Your task to perform on an android device: Open Yahoo.com Image 0: 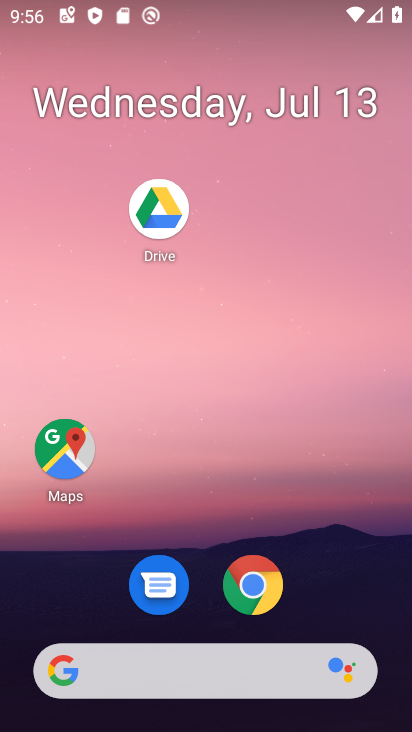
Step 0: press home button
Your task to perform on an android device: Open Yahoo.com Image 1: 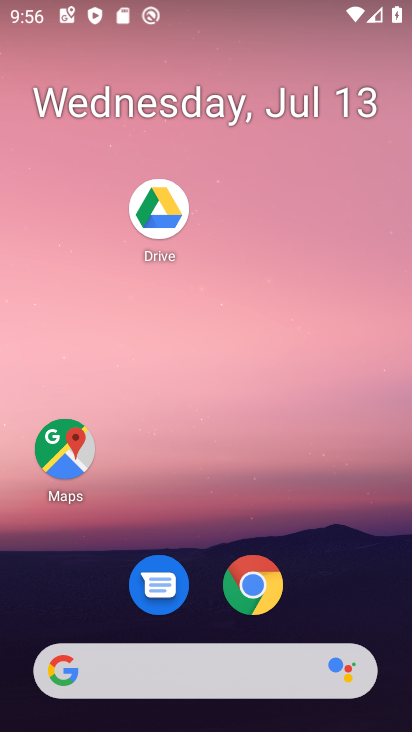
Step 1: click (254, 575)
Your task to perform on an android device: Open Yahoo.com Image 2: 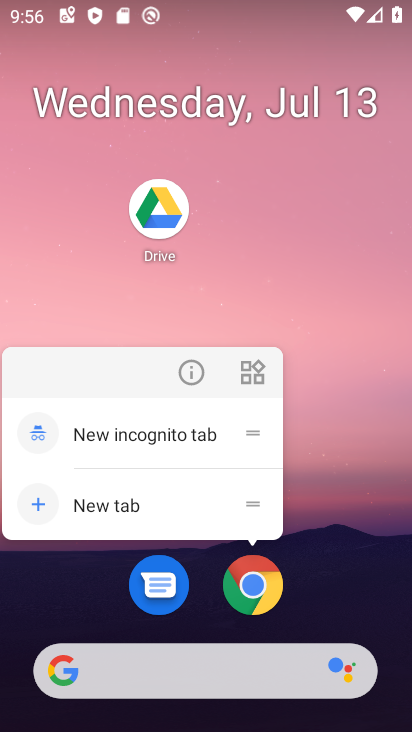
Step 2: click (259, 577)
Your task to perform on an android device: Open Yahoo.com Image 3: 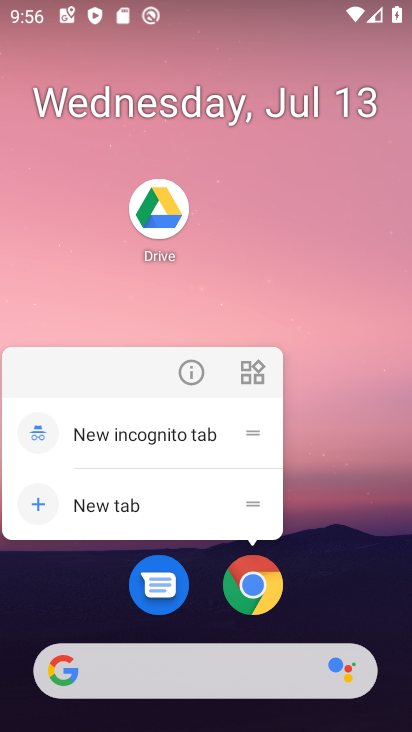
Step 3: click (255, 584)
Your task to perform on an android device: Open Yahoo.com Image 4: 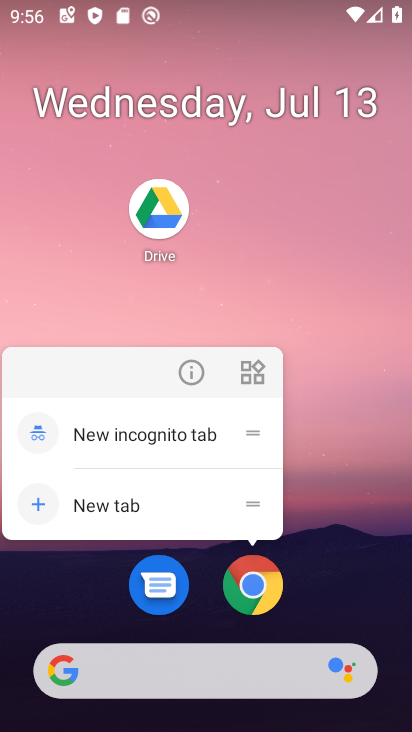
Step 4: click (255, 584)
Your task to perform on an android device: Open Yahoo.com Image 5: 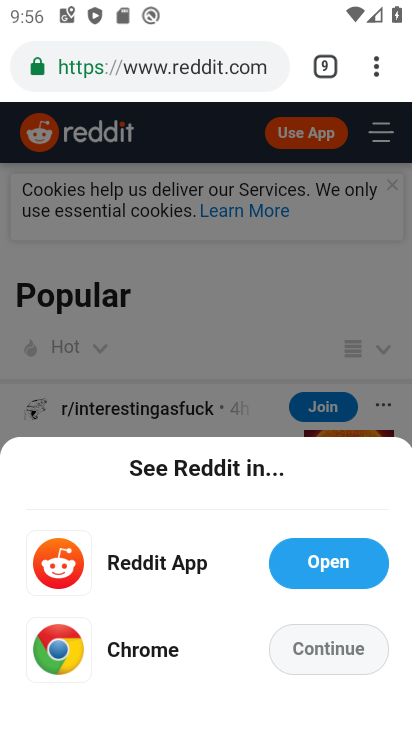
Step 5: drag from (369, 64) to (227, 132)
Your task to perform on an android device: Open Yahoo.com Image 6: 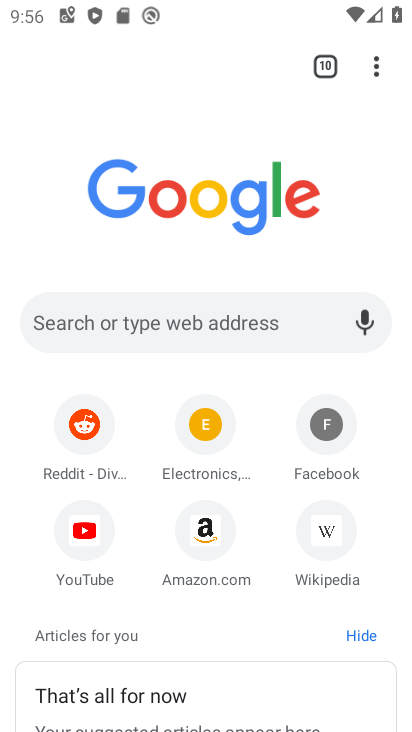
Step 6: click (111, 331)
Your task to perform on an android device: Open Yahoo.com Image 7: 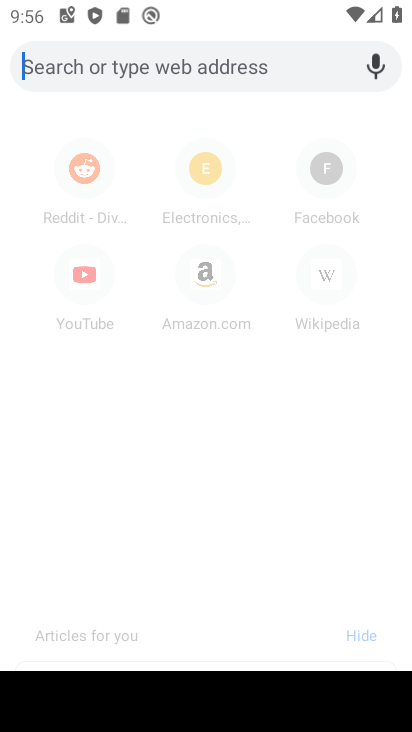
Step 7: type "yahoo.com"
Your task to perform on an android device: Open Yahoo.com Image 8: 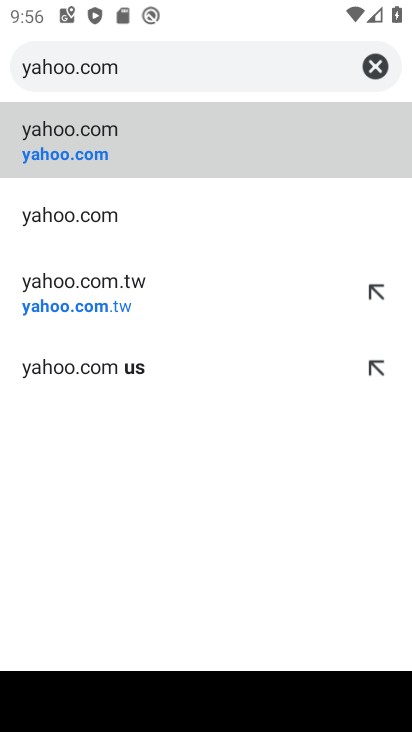
Step 8: click (70, 135)
Your task to perform on an android device: Open Yahoo.com Image 9: 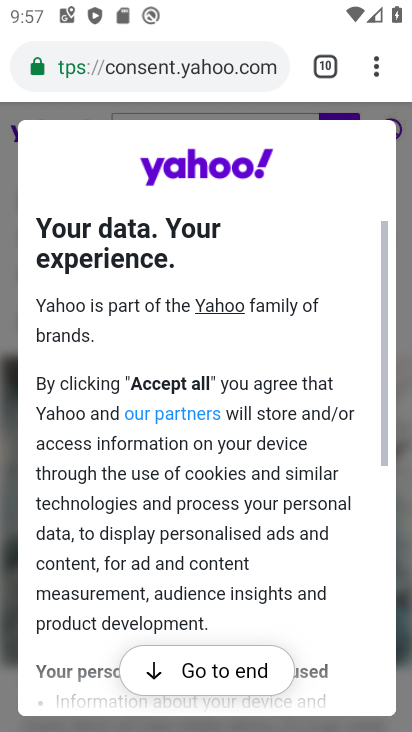
Step 9: click (214, 671)
Your task to perform on an android device: Open Yahoo.com Image 10: 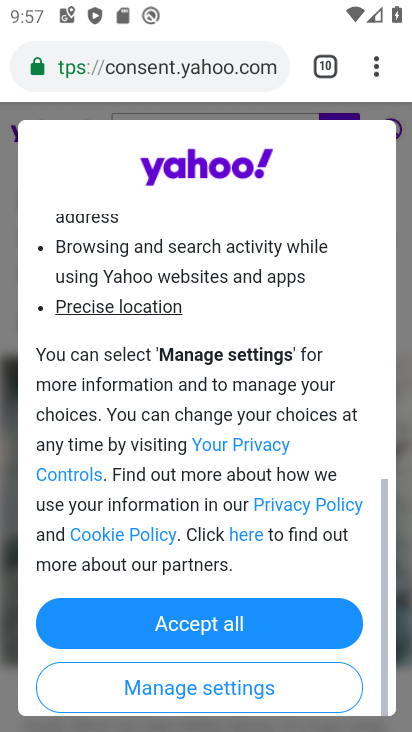
Step 10: click (218, 627)
Your task to perform on an android device: Open Yahoo.com Image 11: 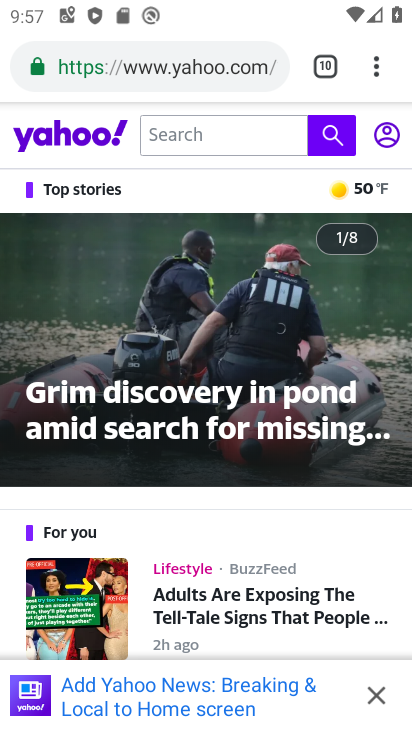
Step 11: task complete